Your task to perform on an android device: Empty the shopping cart on bestbuy. Add "logitech g933" to the cart on bestbuy Image 0: 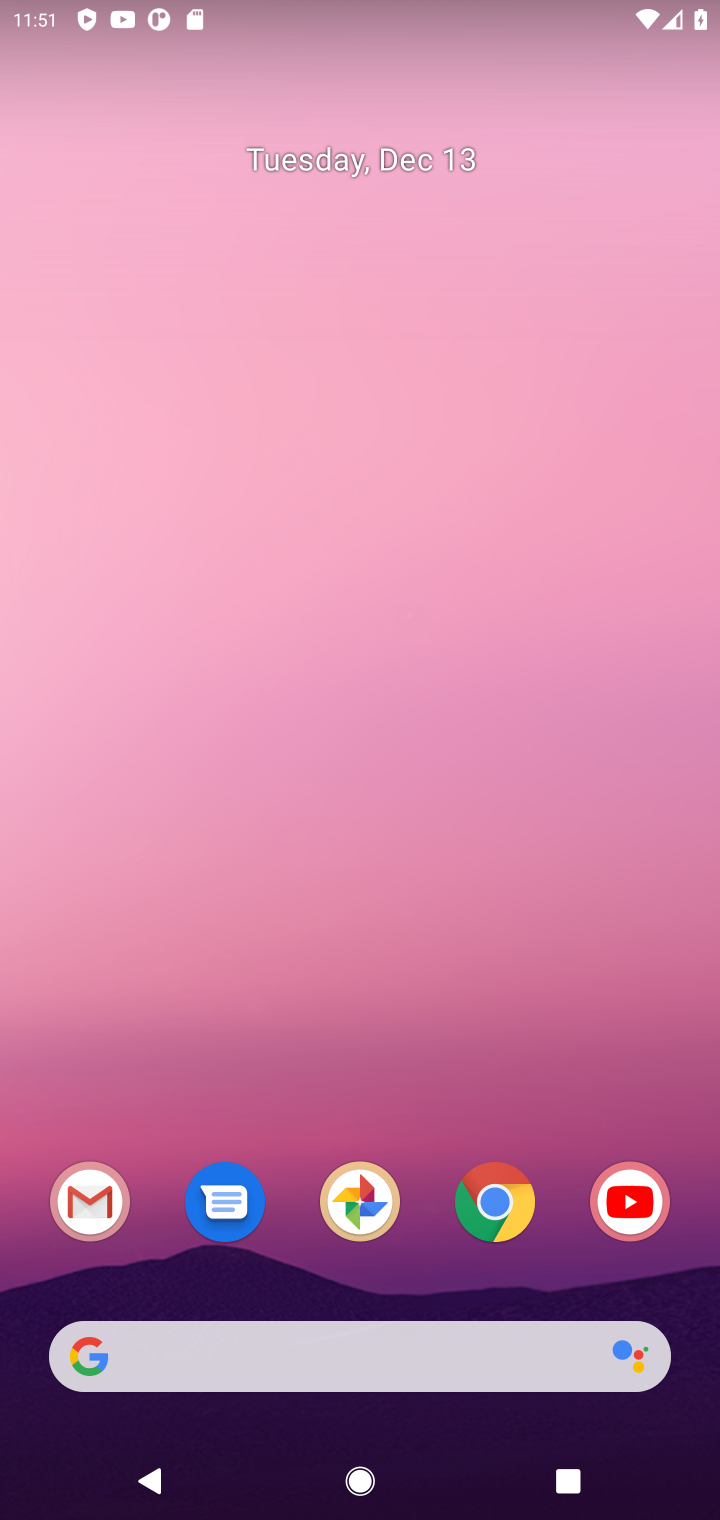
Step 0: click (498, 1204)
Your task to perform on an android device: Empty the shopping cart on bestbuy. Add "logitech g933" to the cart on bestbuy Image 1: 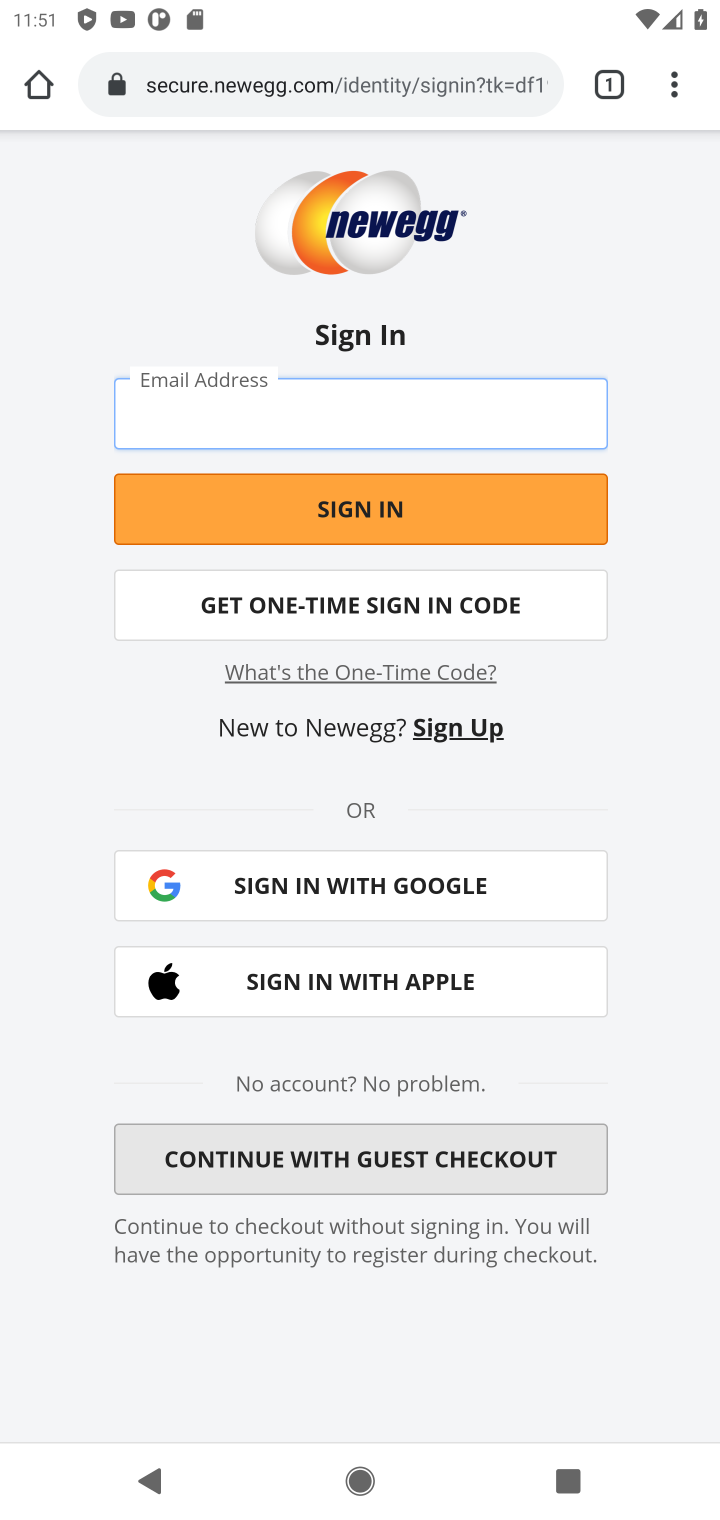
Step 1: click (349, 80)
Your task to perform on an android device: Empty the shopping cart on bestbuy. Add "logitech g933" to the cart on bestbuy Image 2: 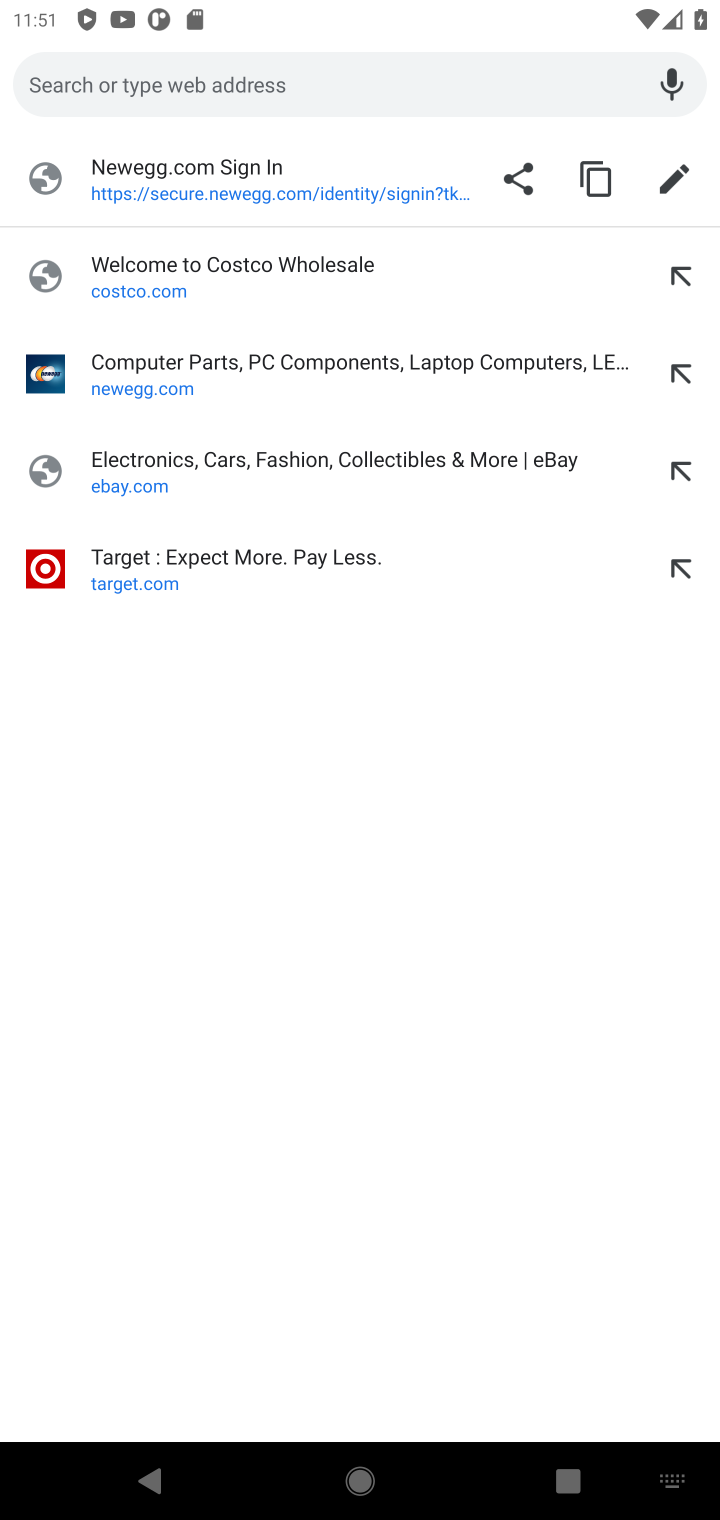
Step 2: type "bestbuy"
Your task to perform on an android device: Empty the shopping cart on bestbuy. Add "logitech g933" to the cart on bestbuy Image 3: 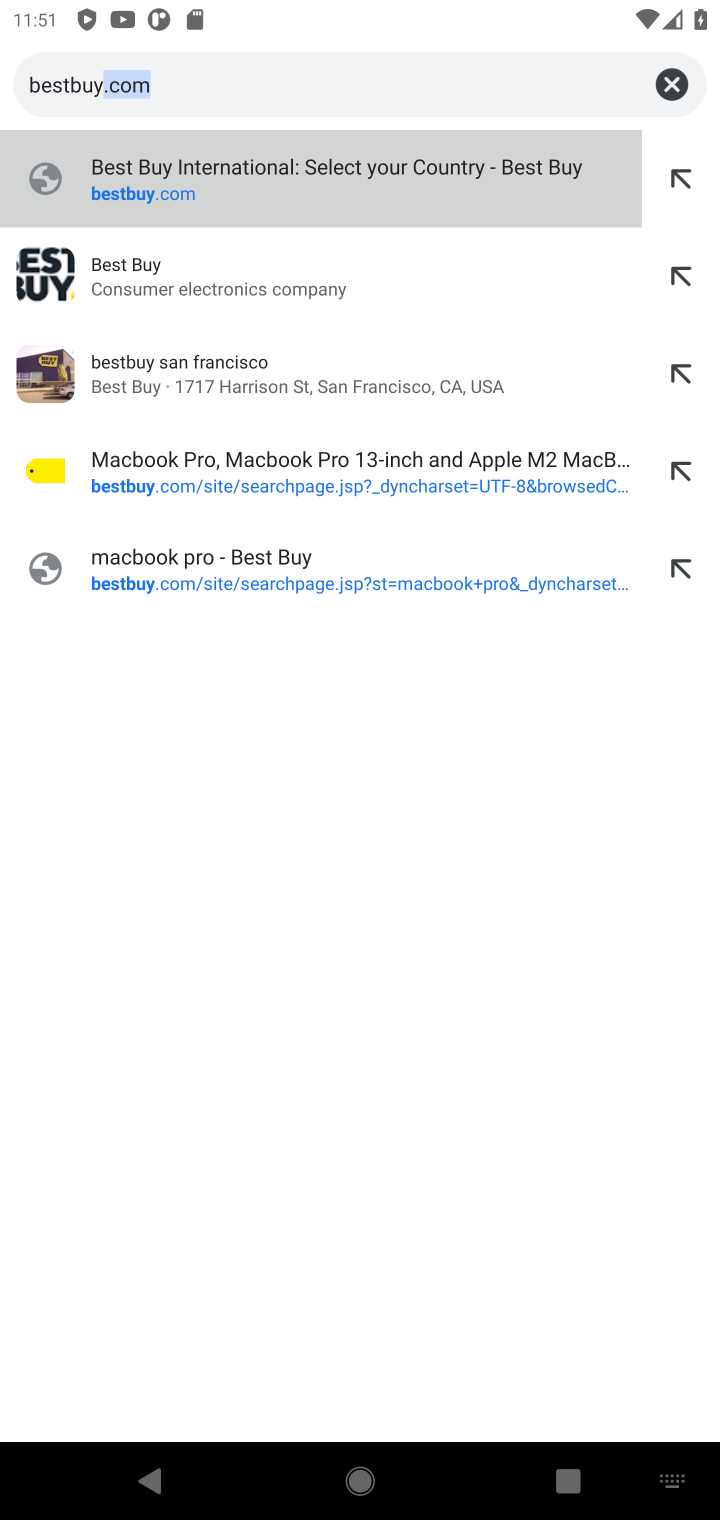
Step 3: click (407, 184)
Your task to perform on an android device: Empty the shopping cart on bestbuy. Add "logitech g933" to the cart on bestbuy Image 4: 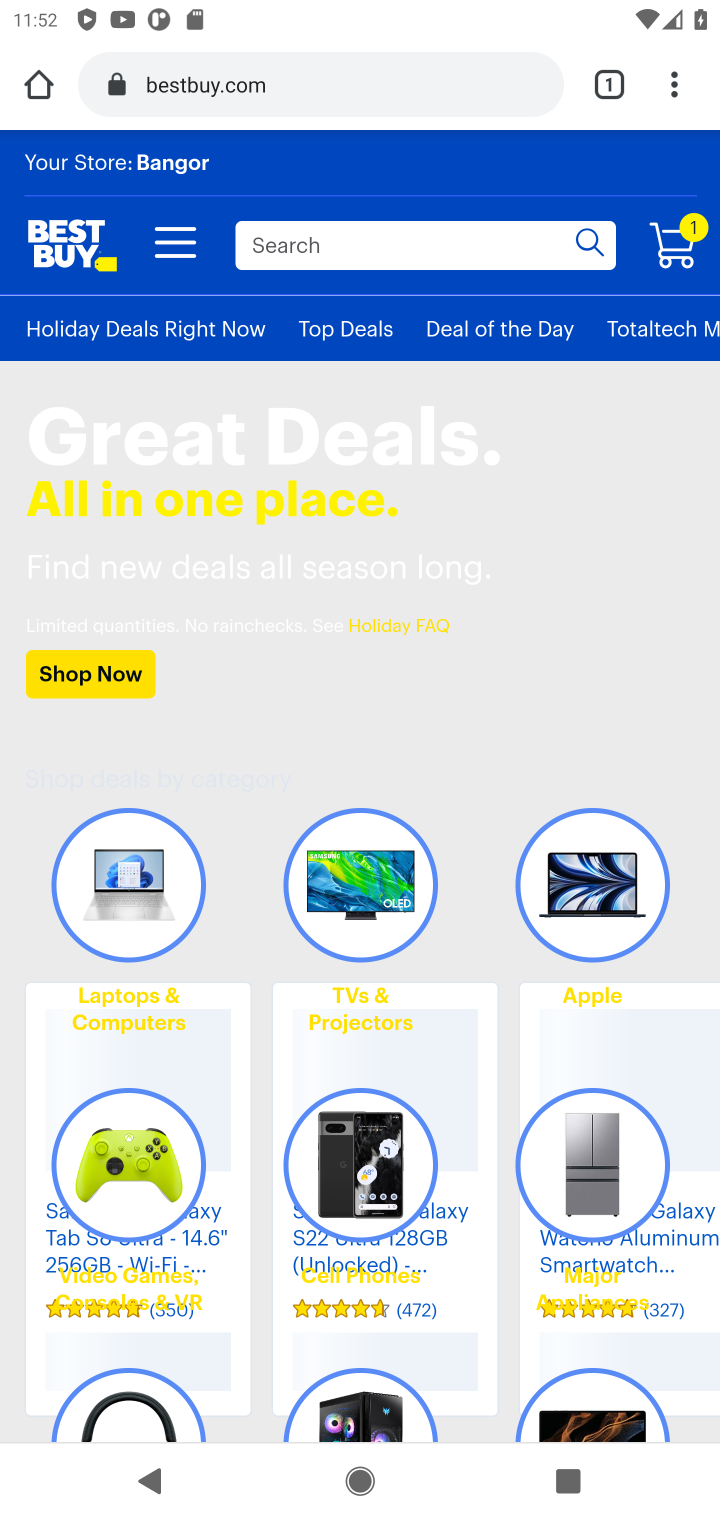
Step 4: click (415, 246)
Your task to perform on an android device: Empty the shopping cart on bestbuy. Add "logitech g933" to the cart on bestbuy Image 5: 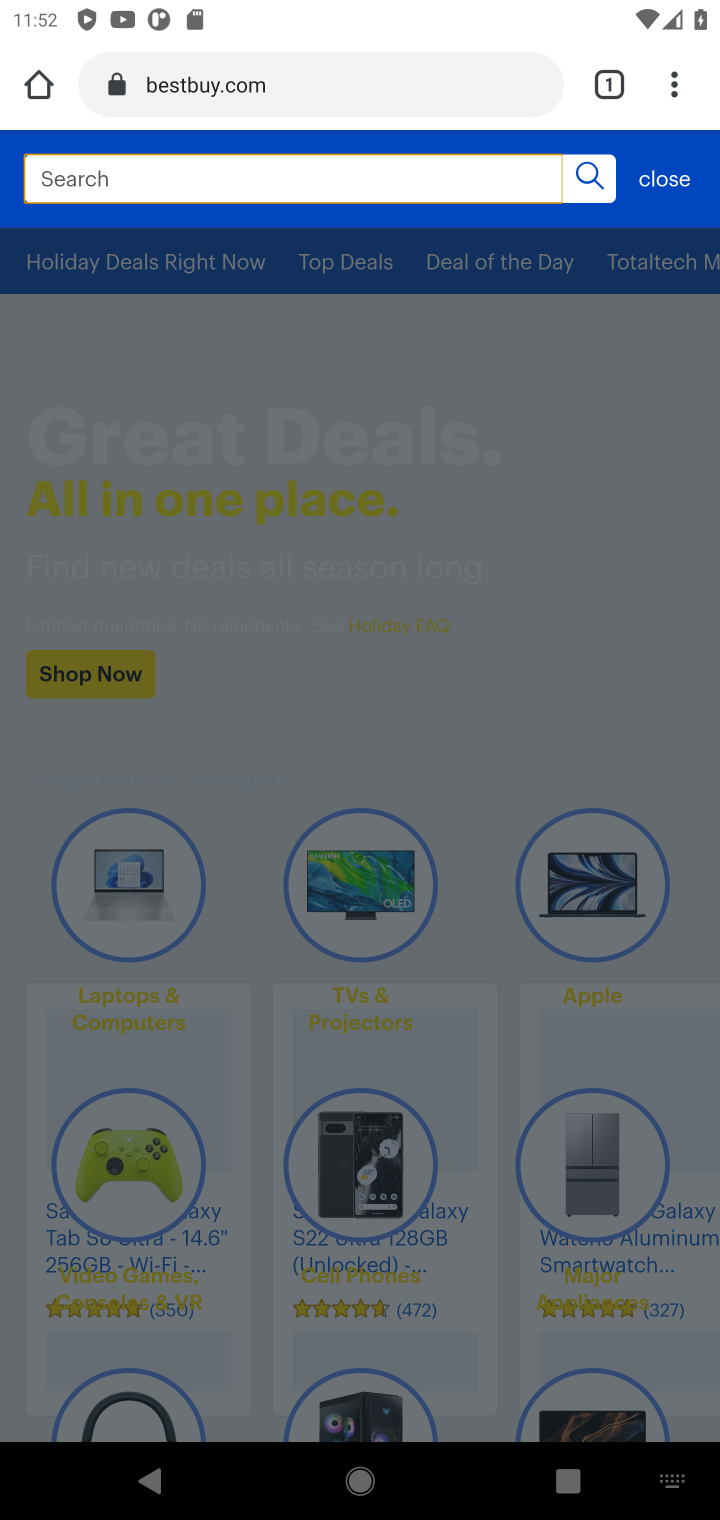
Step 5: type "logitech g933"
Your task to perform on an android device: Empty the shopping cart on bestbuy. Add "logitech g933" to the cart on bestbuy Image 6: 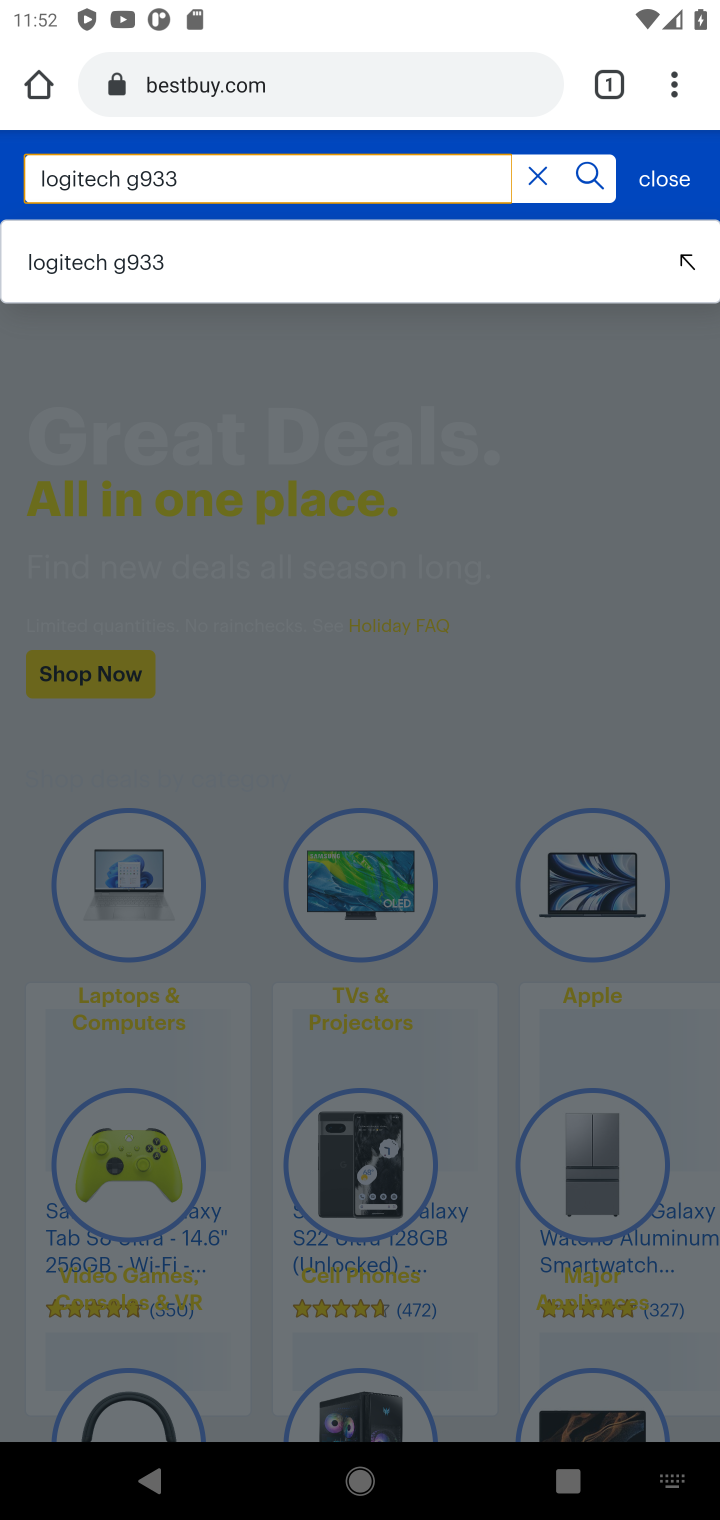
Step 6: click (218, 272)
Your task to perform on an android device: Empty the shopping cart on bestbuy. Add "logitech g933" to the cart on bestbuy Image 7: 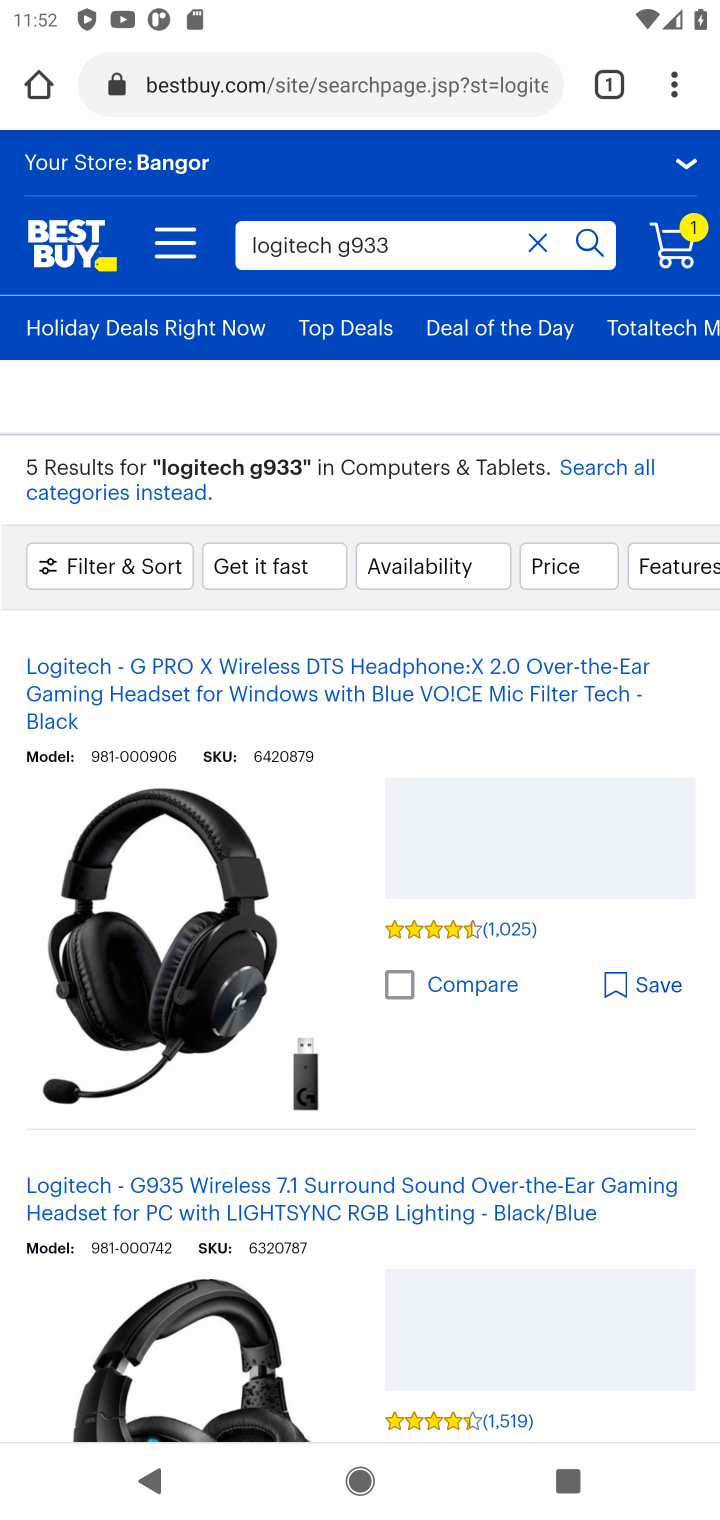
Step 7: click (600, 851)
Your task to perform on an android device: Empty the shopping cart on bestbuy. Add "logitech g933" to the cart on bestbuy Image 8: 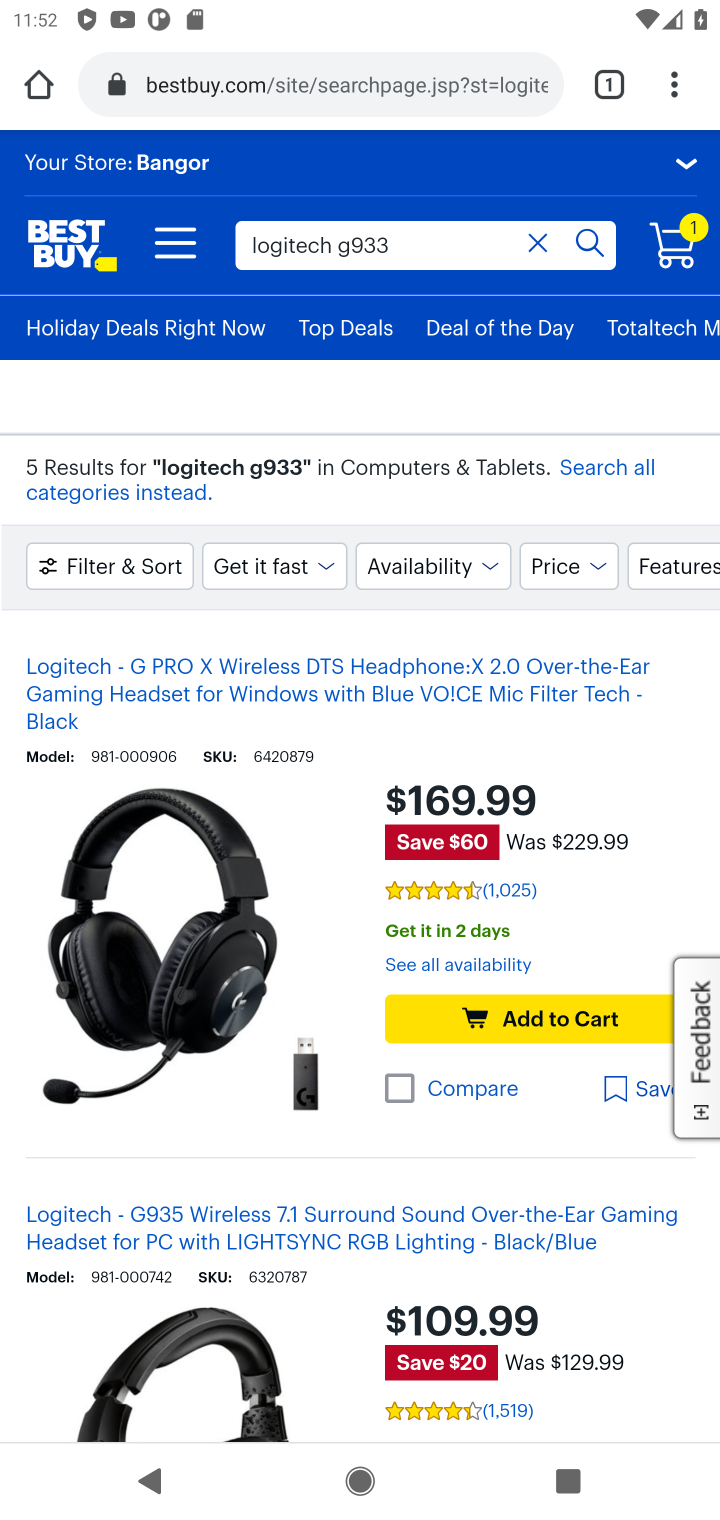
Step 8: click (553, 1020)
Your task to perform on an android device: Empty the shopping cart on bestbuy. Add "logitech g933" to the cart on bestbuy Image 9: 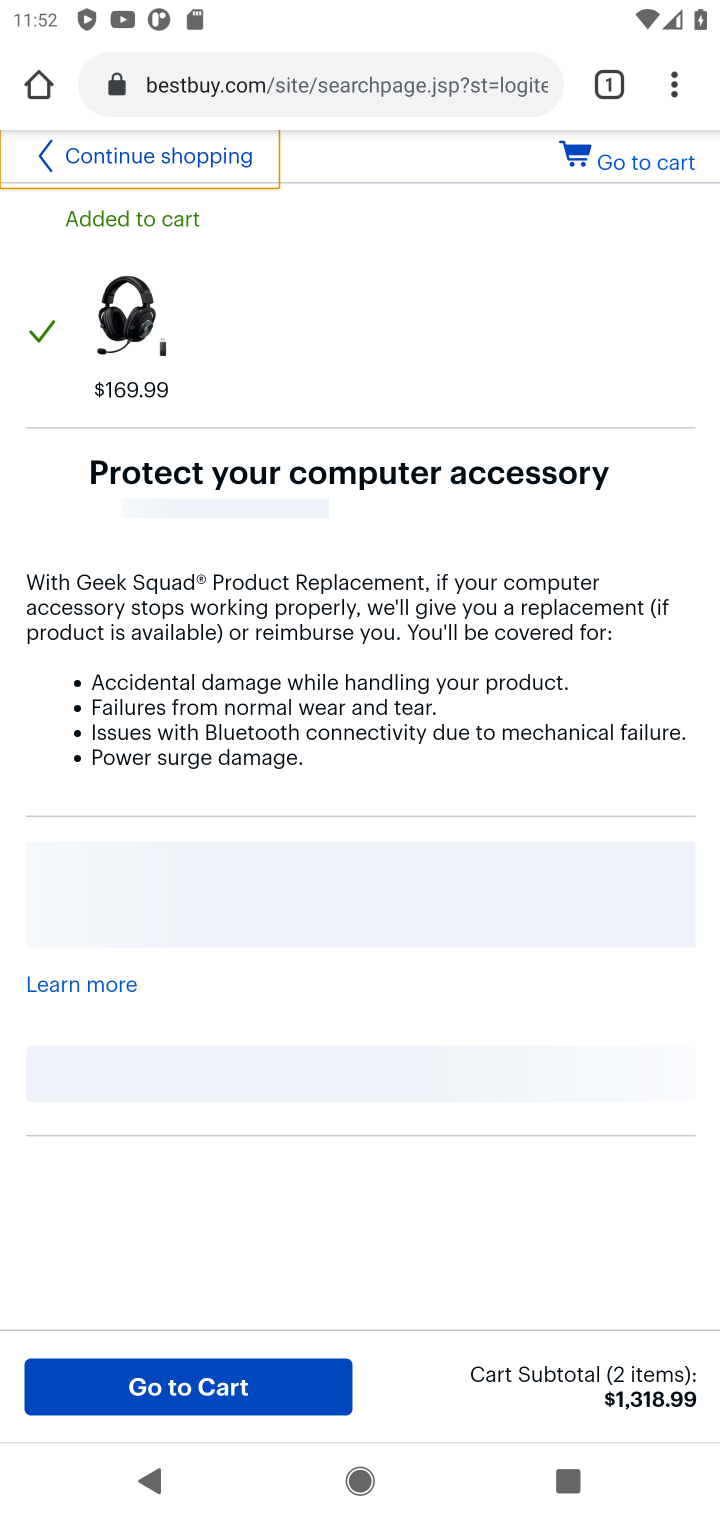
Step 9: click (254, 1378)
Your task to perform on an android device: Empty the shopping cart on bestbuy. Add "logitech g933" to the cart on bestbuy Image 10: 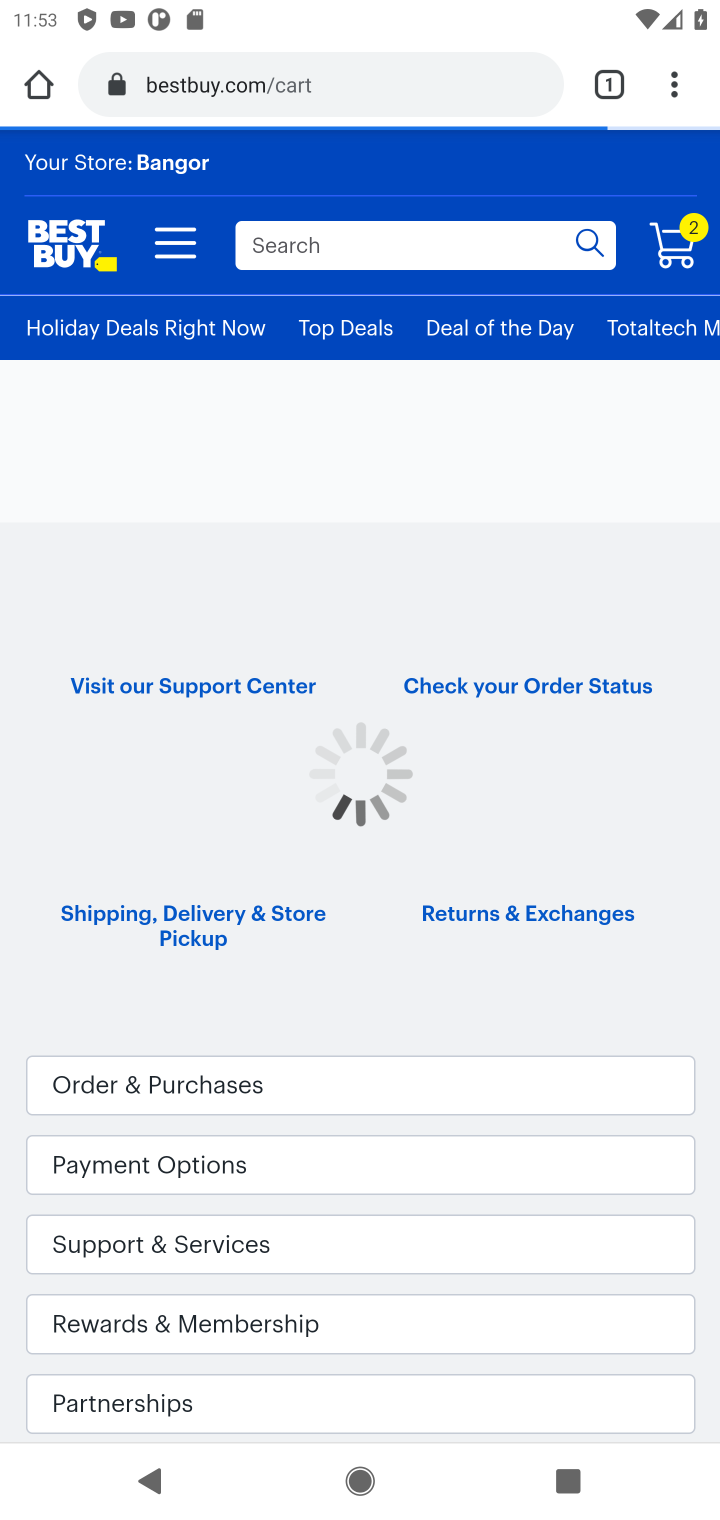
Step 10: task complete